Your task to perform on an android device: Find coffee shops on Maps Image 0: 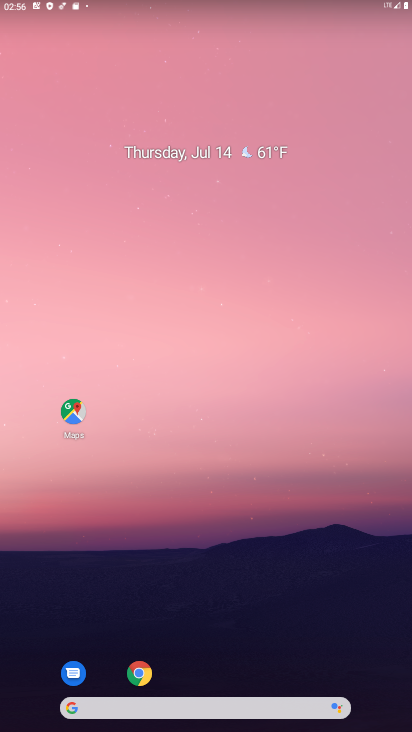
Step 0: click (73, 420)
Your task to perform on an android device: Find coffee shops on Maps Image 1: 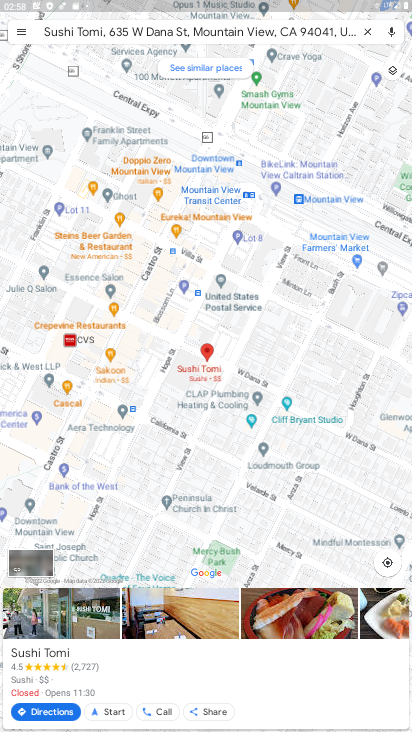
Step 1: click (180, 30)
Your task to perform on an android device: Find coffee shops on Maps Image 2: 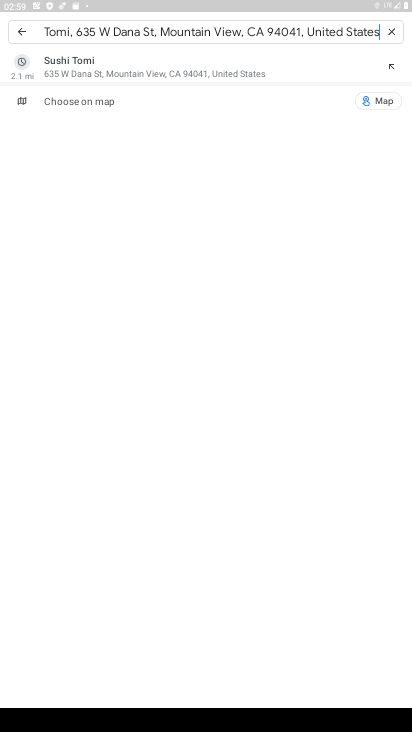
Step 2: click (389, 37)
Your task to perform on an android device: Find coffee shops on Maps Image 3: 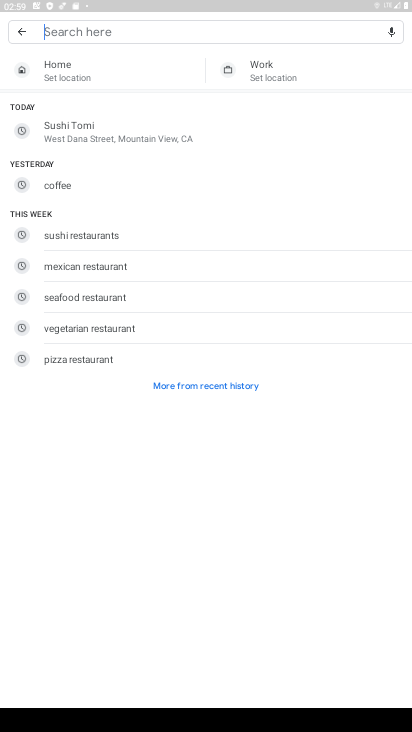
Step 3: click (102, 236)
Your task to perform on an android device: Find coffee shops on Maps Image 4: 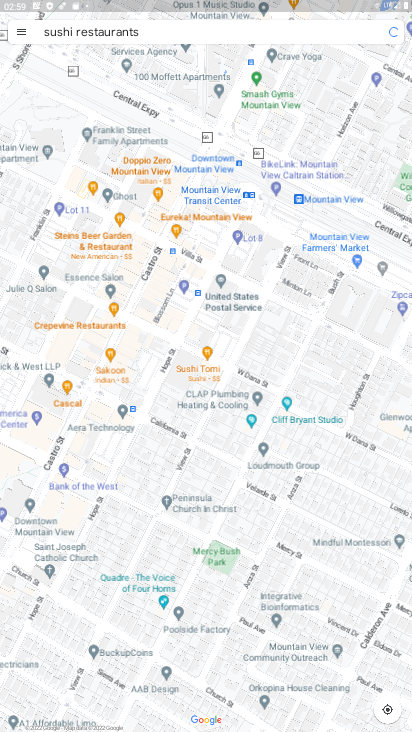
Step 4: task complete